Your task to perform on an android device: visit the assistant section in the google photos Image 0: 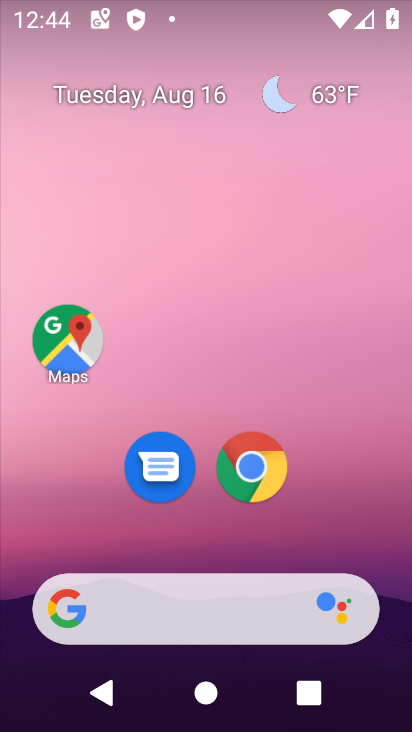
Step 0: press home button
Your task to perform on an android device: visit the assistant section in the google photos Image 1: 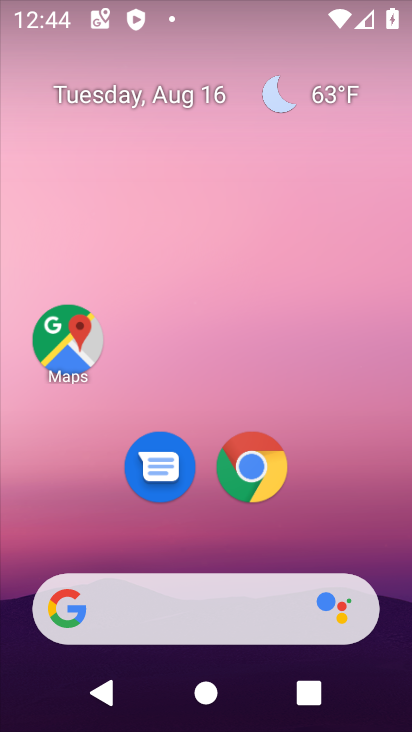
Step 1: drag from (366, 549) to (407, 531)
Your task to perform on an android device: visit the assistant section in the google photos Image 2: 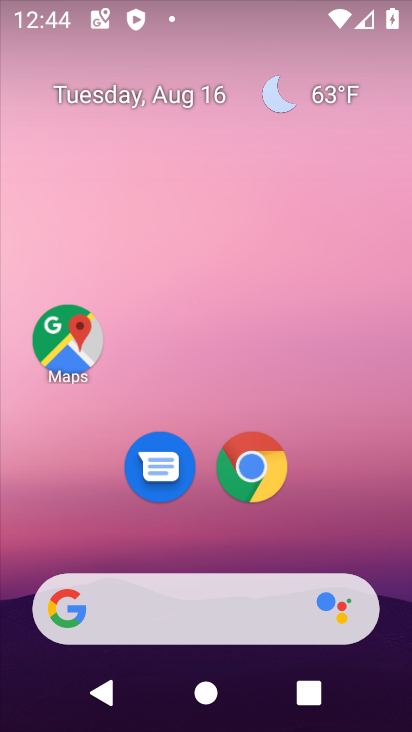
Step 2: drag from (393, 551) to (408, 494)
Your task to perform on an android device: visit the assistant section in the google photos Image 3: 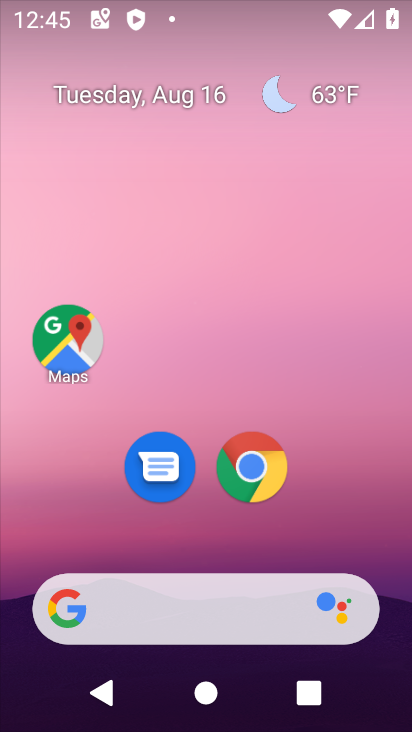
Step 3: drag from (392, 535) to (411, 55)
Your task to perform on an android device: visit the assistant section in the google photos Image 4: 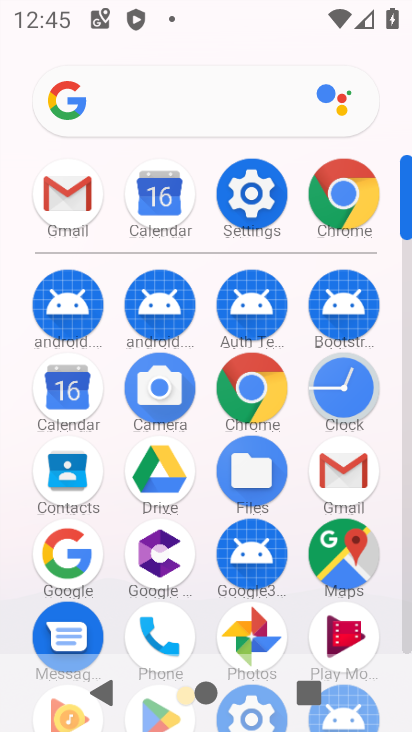
Step 4: click (255, 632)
Your task to perform on an android device: visit the assistant section in the google photos Image 5: 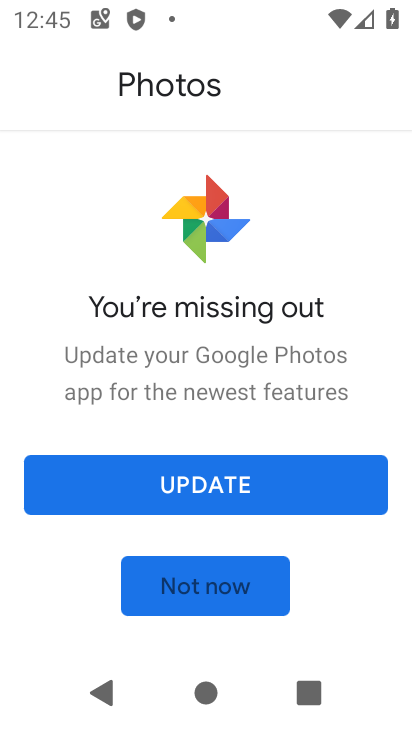
Step 5: click (201, 589)
Your task to perform on an android device: visit the assistant section in the google photos Image 6: 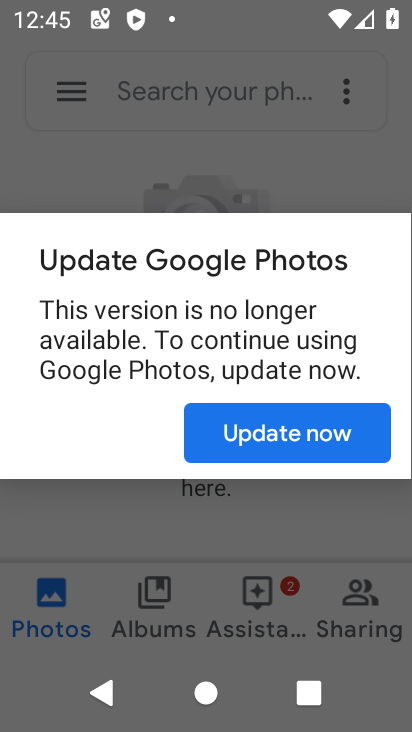
Step 6: click (320, 439)
Your task to perform on an android device: visit the assistant section in the google photos Image 7: 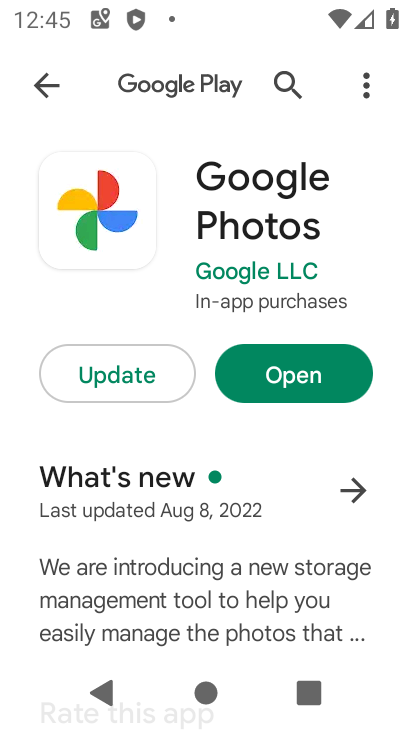
Step 7: click (160, 376)
Your task to perform on an android device: visit the assistant section in the google photos Image 8: 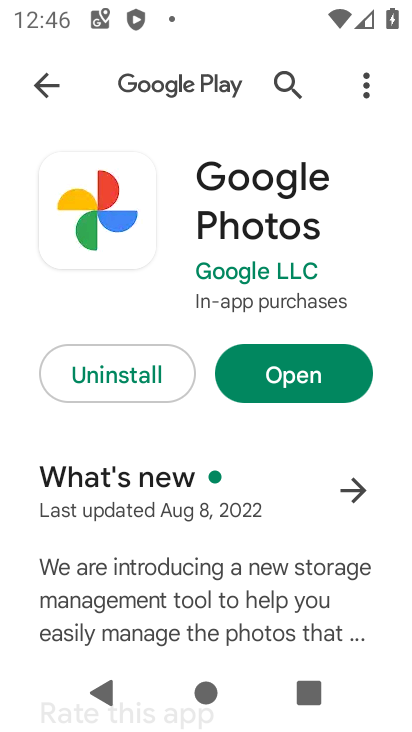
Step 8: click (300, 378)
Your task to perform on an android device: visit the assistant section in the google photos Image 9: 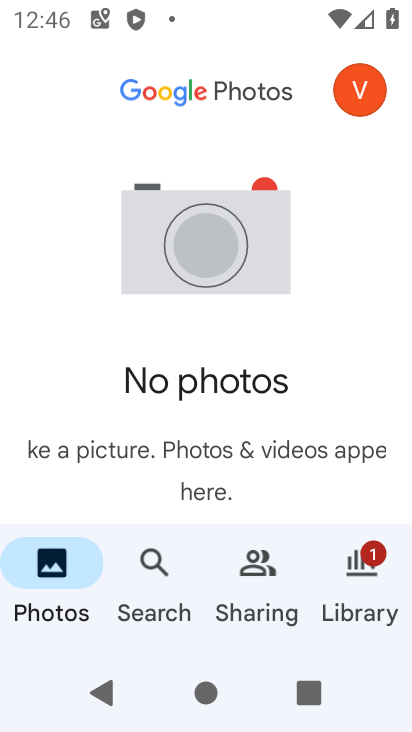
Step 9: task complete